Your task to perform on an android device: Go to privacy settings Image 0: 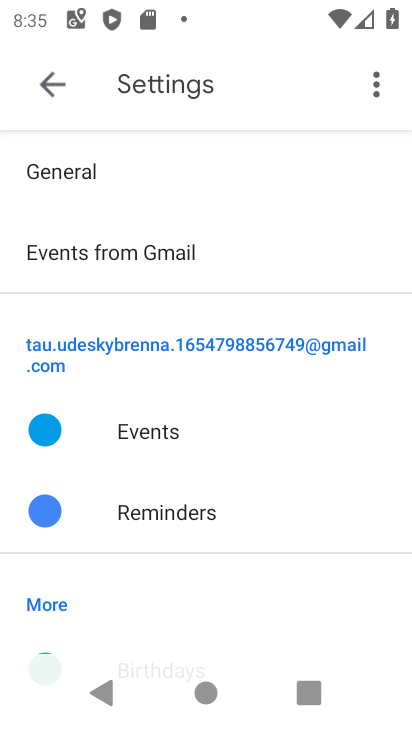
Step 0: press home button
Your task to perform on an android device: Go to privacy settings Image 1: 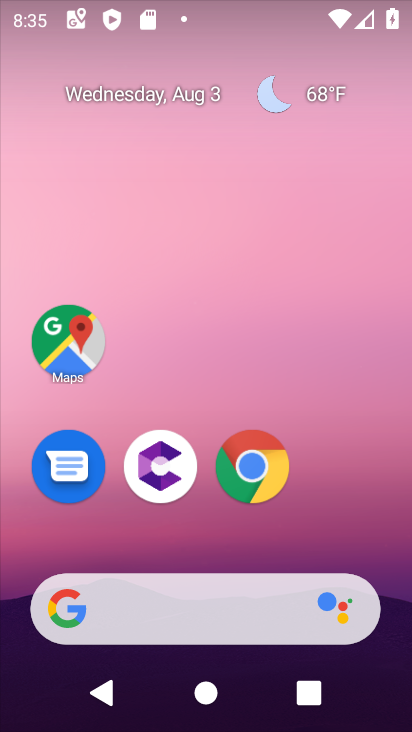
Step 1: drag from (338, 474) to (356, 51)
Your task to perform on an android device: Go to privacy settings Image 2: 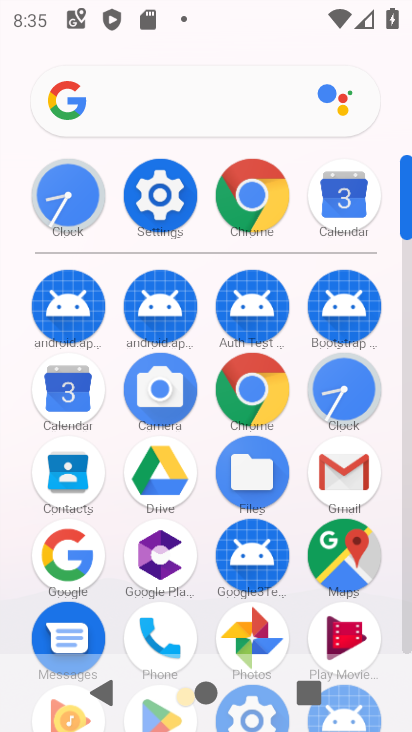
Step 2: click (170, 191)
Your task to perform on an android device: Go to privacy settings Image 3: 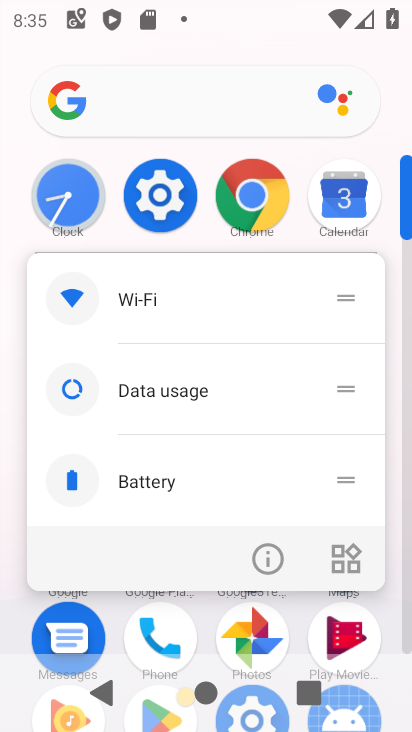
Step 3: click (153, 201)
Your task to perform on an android device: Go to privacy settings Image 4: 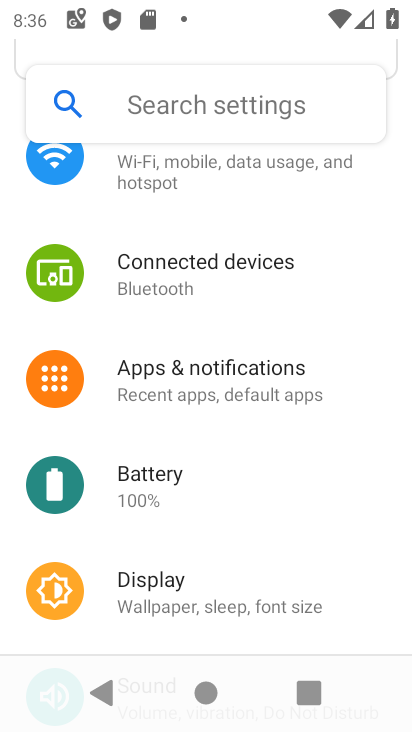
Step 4: drag from (261, 527) to (281, 178)
Your task to perform on an android device: Go to privacy settings Image 5: 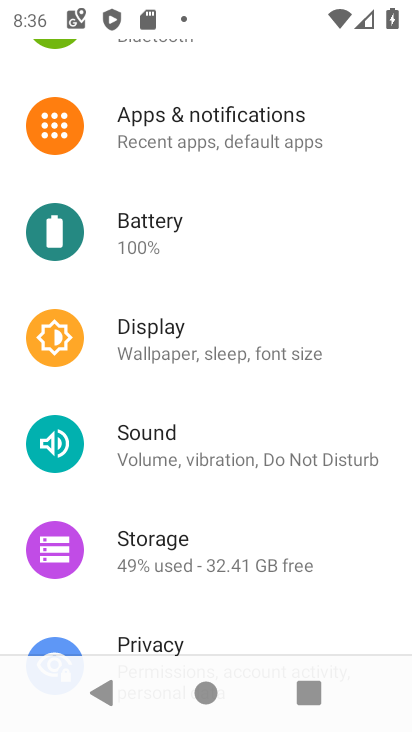
Step 5: drag from (247, 527) to (335, 194)
Your task to perform on an android device: Go to privacy settings Image 6: 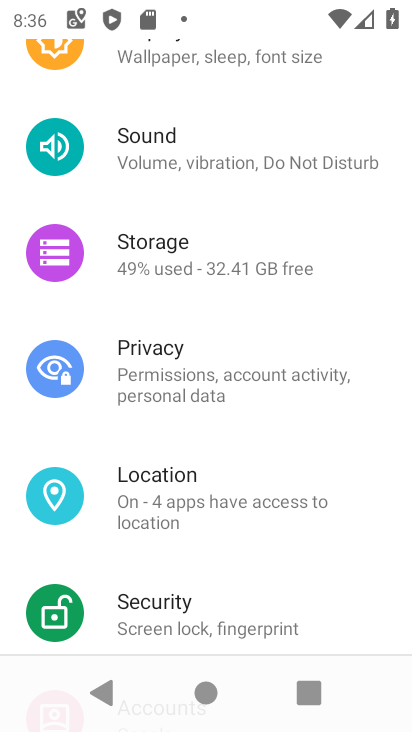
Step 6: click (168, 374)
Your task to perform on an android device: Go to privacy settings Image 7: 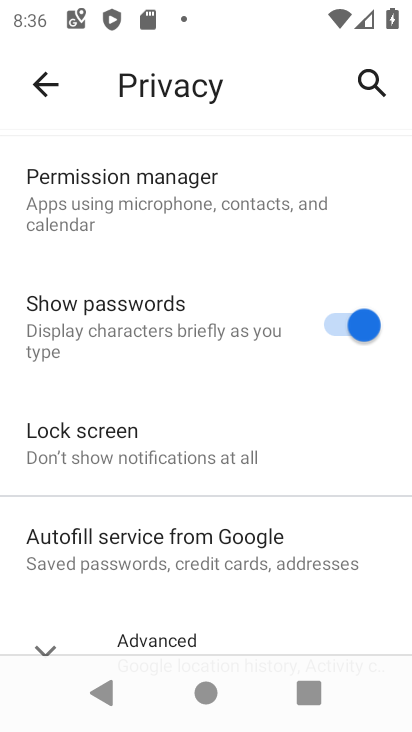
Step 7: task complete